Your task to perform on an android device: open sync settings in chrome Image 0: 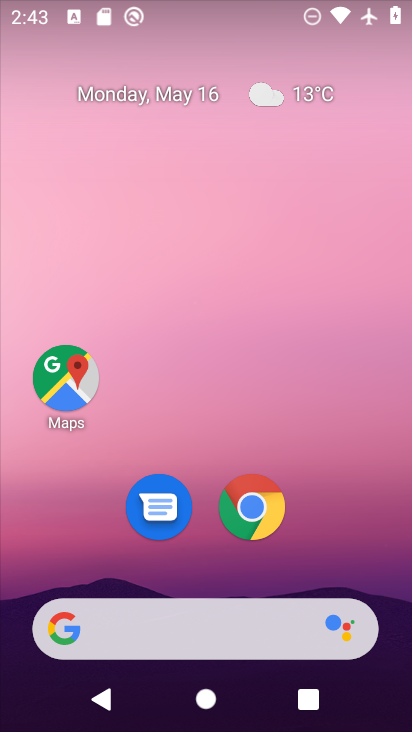
Step 0: drag from (192, 572) to (106, 146)
Your task to perform on an android device: open sync settings in chrome Image 1: 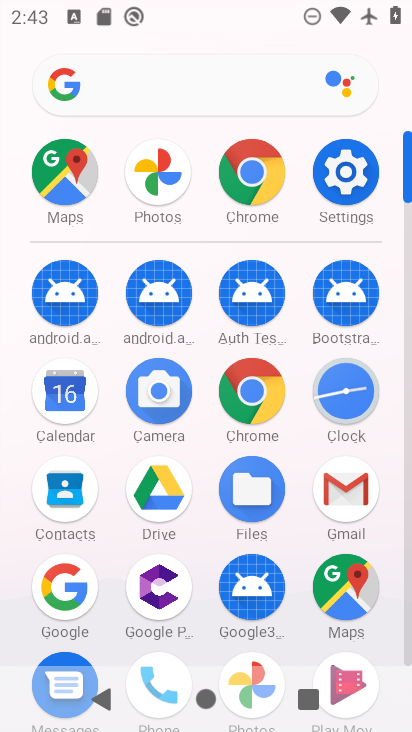
Step 1: click (265, 395)
Your task to perform on an android device: open sync settings in chrome Image 2: 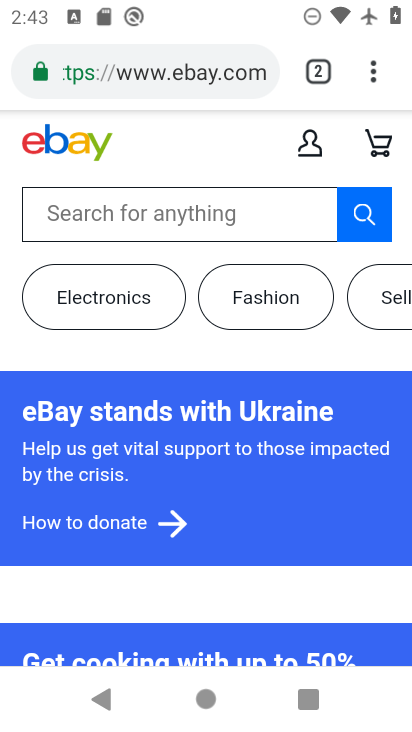
Step 2: click (376, 78)
Your task to perform on an android device: open sync settings in chrome Image 3: 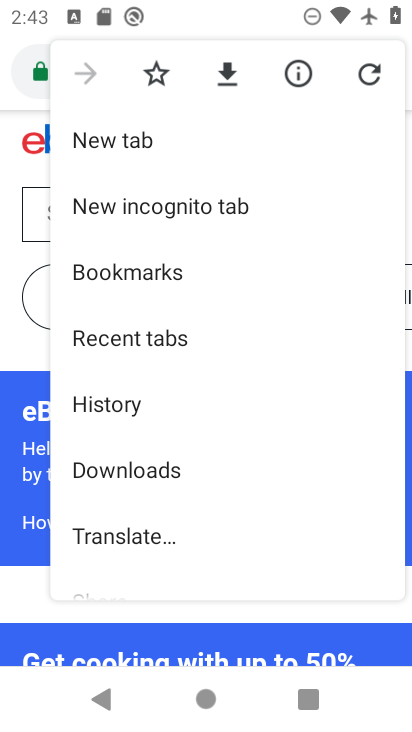
Step 3: drag from (278, 490) to (228, 289)
Your task to perform on an android device: open sync settings in chrome Image 4: 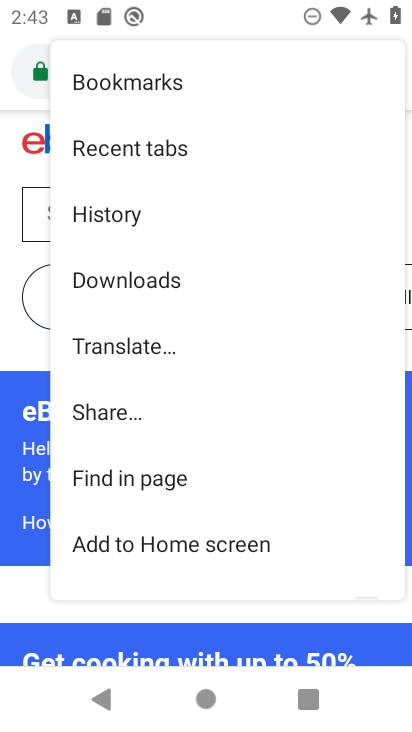
Step 4: drag from (224, 486) to (176, 255)
Your task to perform on an android device: open sync settings in chrome Image 5: 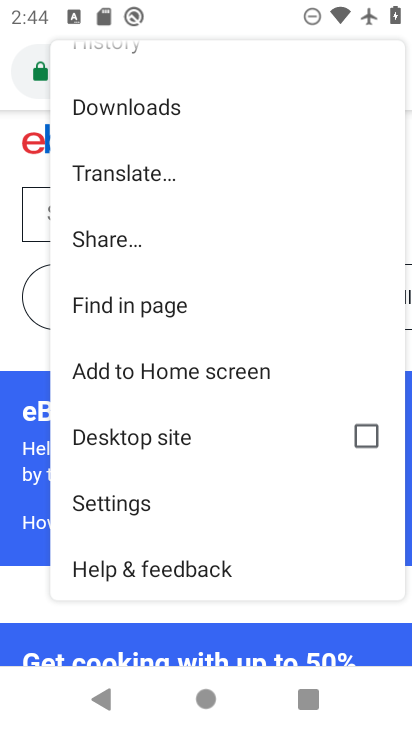
Step 5: click (218, 495)
Your task to perform on an android device: open sync settings in chrome Image 6: 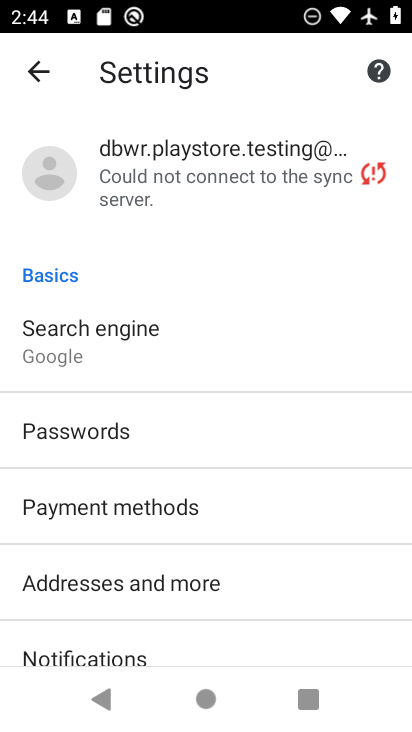
Step 6: drag from (135, 572) to (139, 623)
Your task to perform on an android device: open sync settings in chrome Image 7: 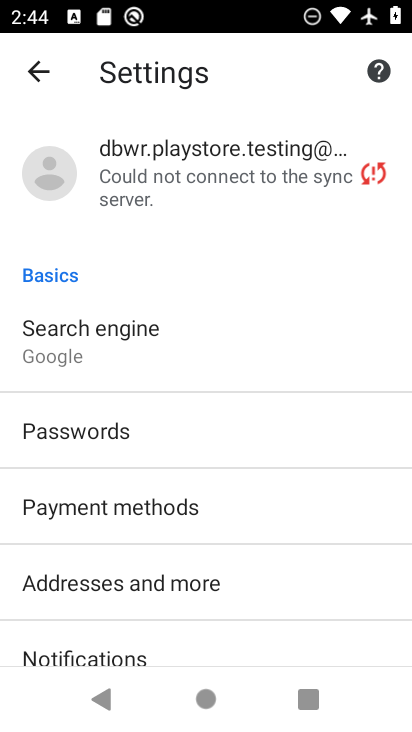
Step 7: click (173, 194)
Your task to perform on an android device: open sync settings in chrome Image 8: 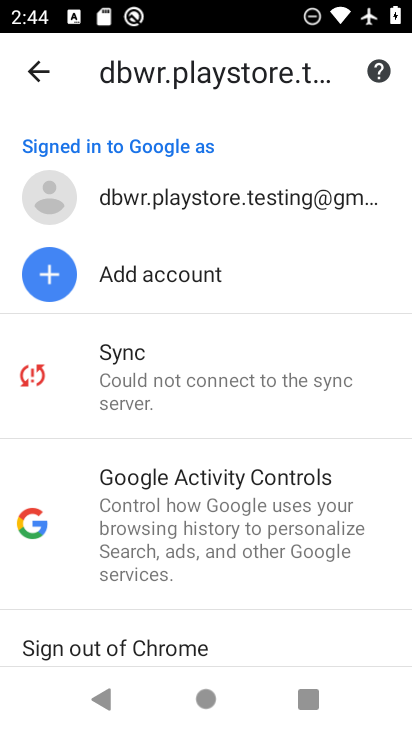
Step 8: click (212, 375)
Your task to perform on an android device: open sync settings in chrome Image 9: 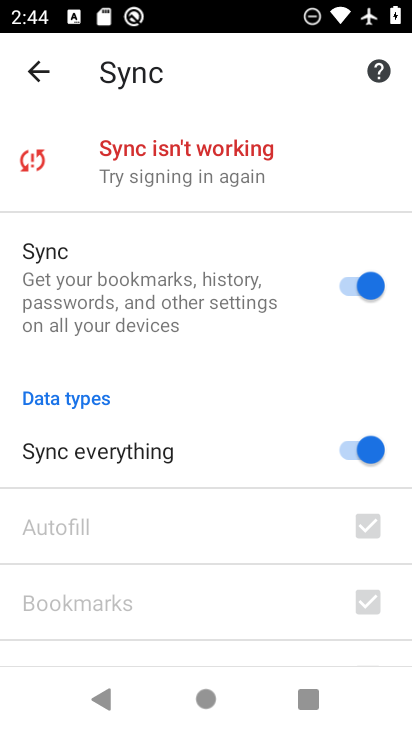
Step 9: task complete